Your task to perform on an android device: Open ESPN.com Image 0: 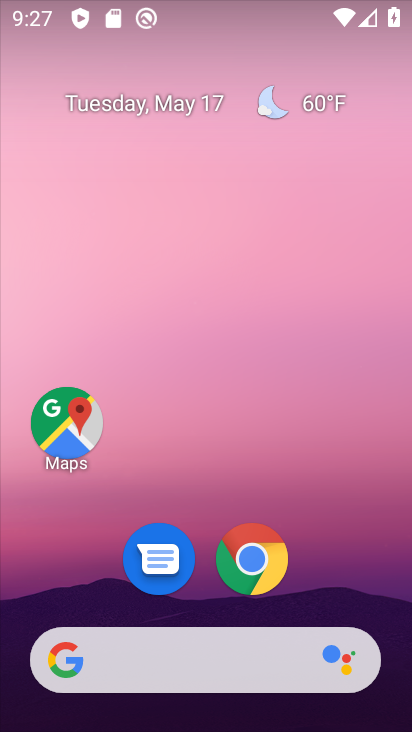
Step 0: click (248, 557)
Your task to perform on an android device: Open ESPN.com Image 1: 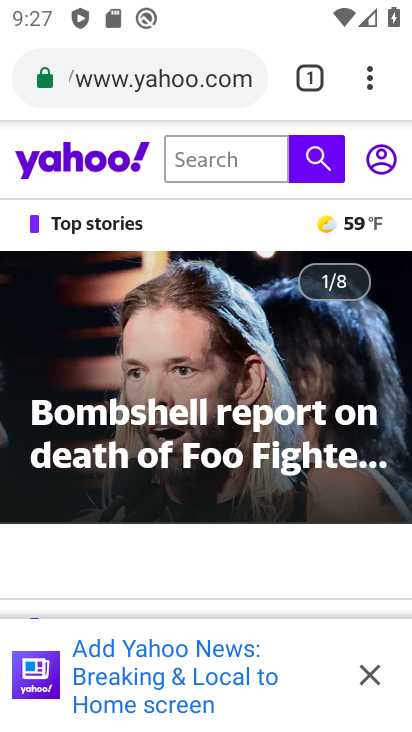
Step 1: click (194, 78)
Your task to perform on an android device: Open ESPN.com Image 2: 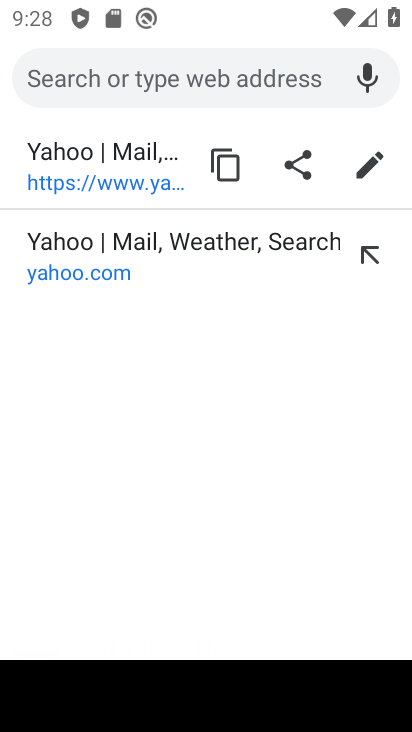
Step 2: type "espn.com"
Your task to perform on an android device: Open ESPN.com Image 3: 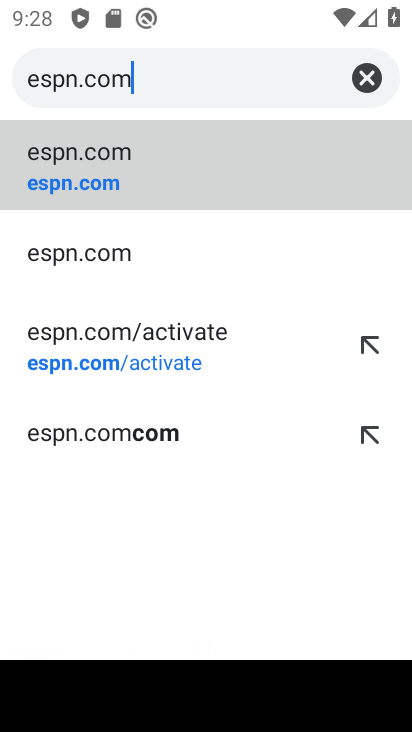
Step 3: click (89, 183)
Your task to perform on an android device: Open ESPN.com Image 4: 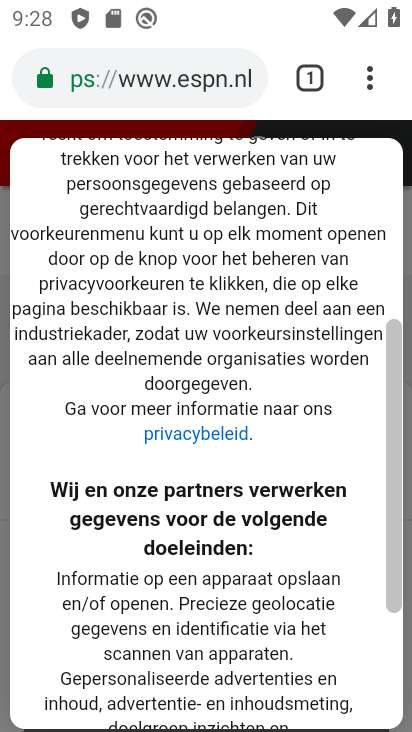
Step 4: task complete